Your task to perform on an android device: Go to Maps Image 0: 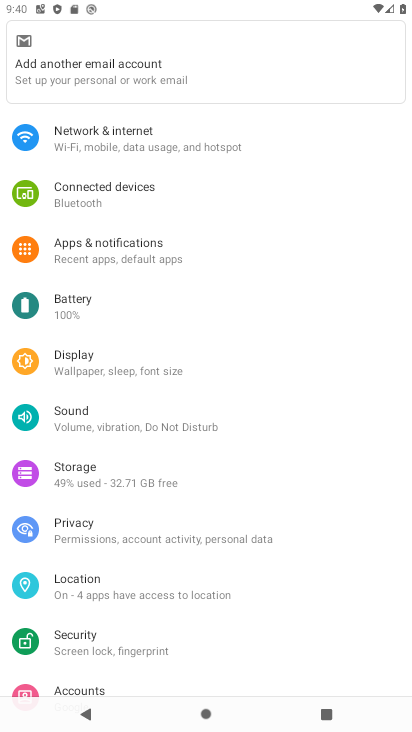
Step 0: press home button
Your task to perform on an android device: Go to Maps Image 1: 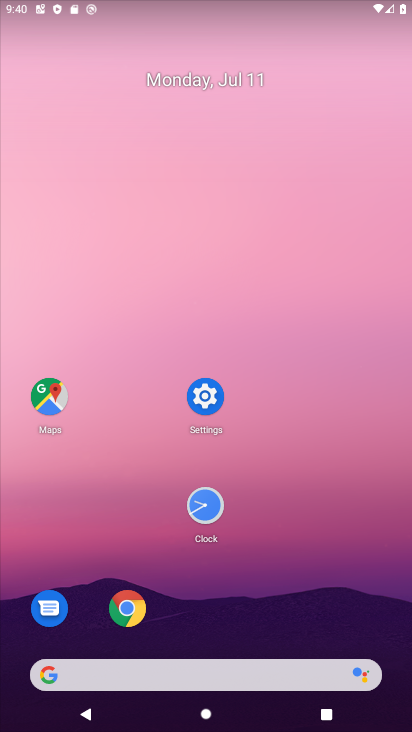
Step 1: click (43, 394)
Your task to perform on an android device: Go to Maps Image 2: 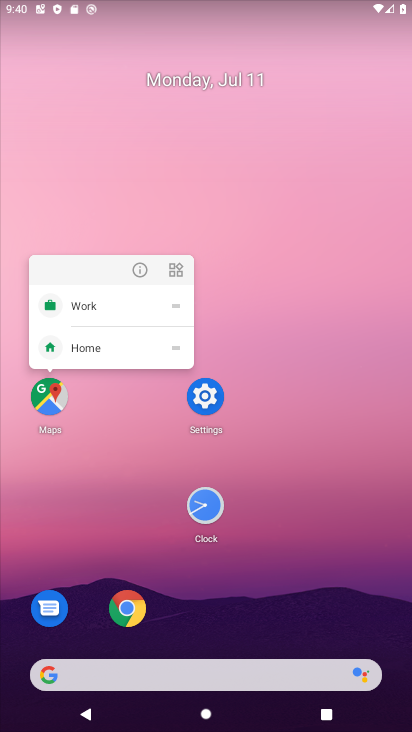
Step 2: click (43, 393)
Your task to perform on an android device: Go to Maps Image 3: 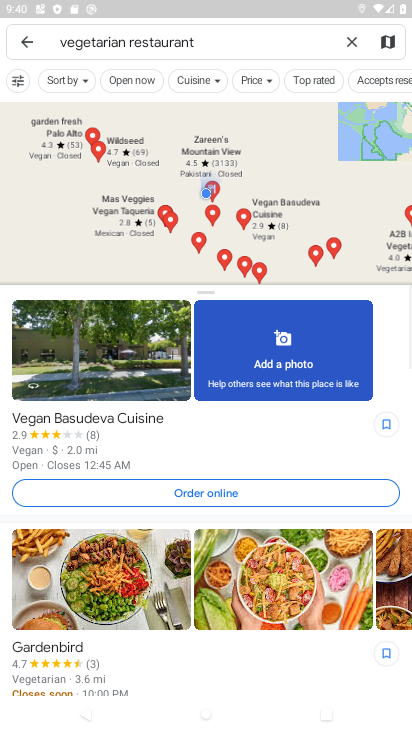
Step 3: click (29, 40)
Your task to perform on an android device: Go to Maps Image 4: 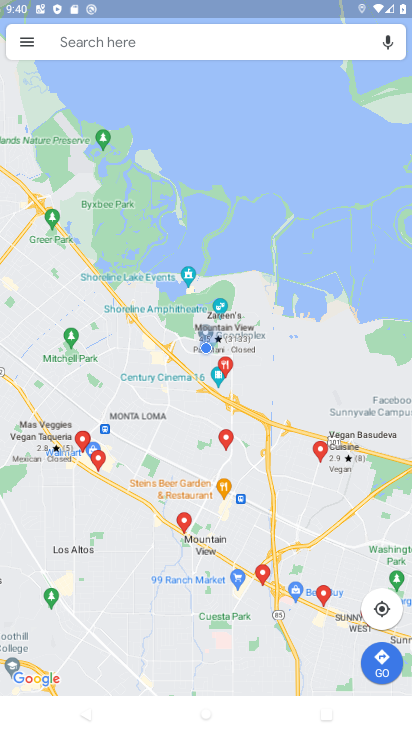
Step 4: task complete